Your task to perform on an android device: Add apple airpods to the cart on bestbuy, then select checkout. Image 0: 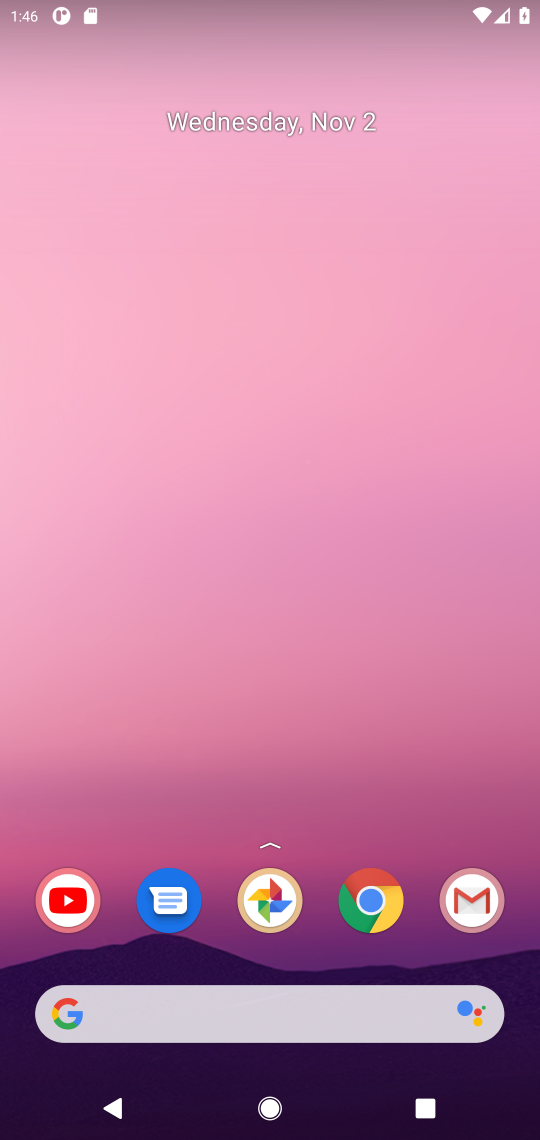
Step 0: press home button
Your task to perform on an android device: Add apple airpods to the cart on bestbuy, then select checkout. Image 1: 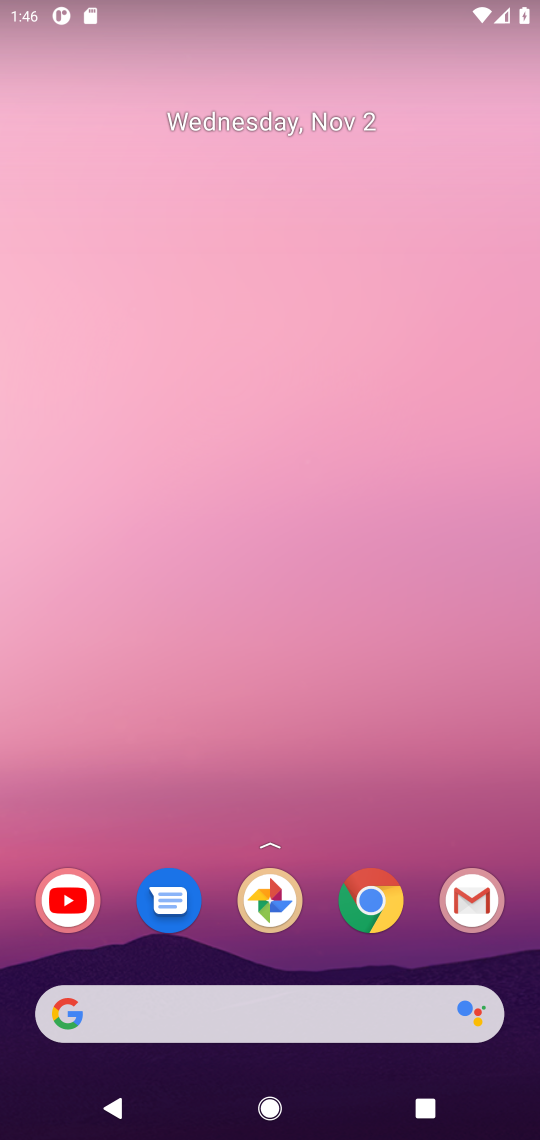
Step 1: press home button
Your task to perform on an android device: Add apple airpods to the cart on bestbuy, then select checkout. Image 2: 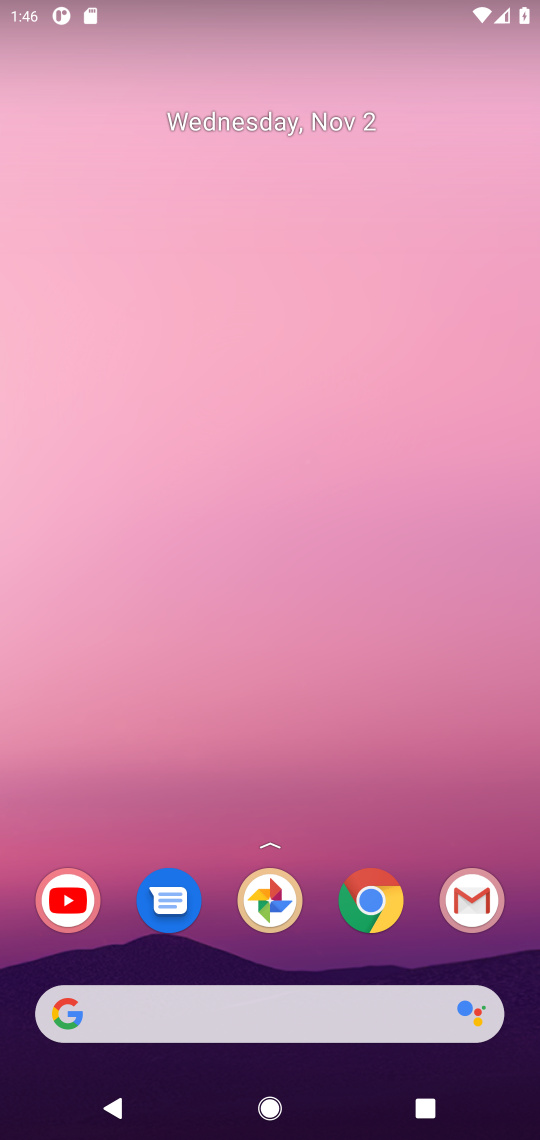
Step 2: click (366, 897)
Your task to perform on an android device: Add apple airpods to the cart on bestbuy, then select checkout. Image 3: 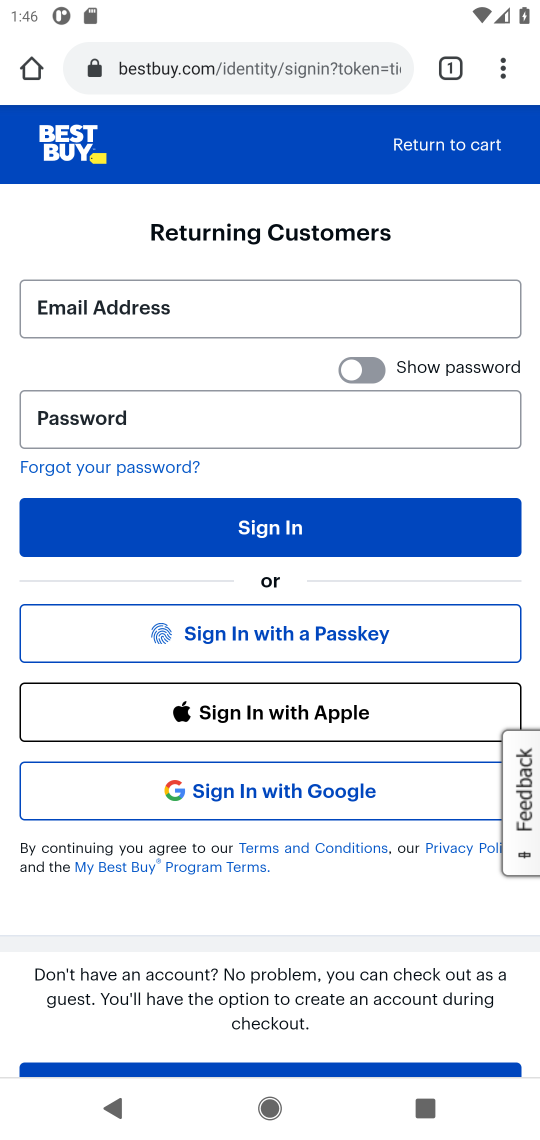
Step 3: click (268, 76)
Your task to perform on an android device: Add apple airpods to the cart on bestbuy, then select checkout. Image 4: 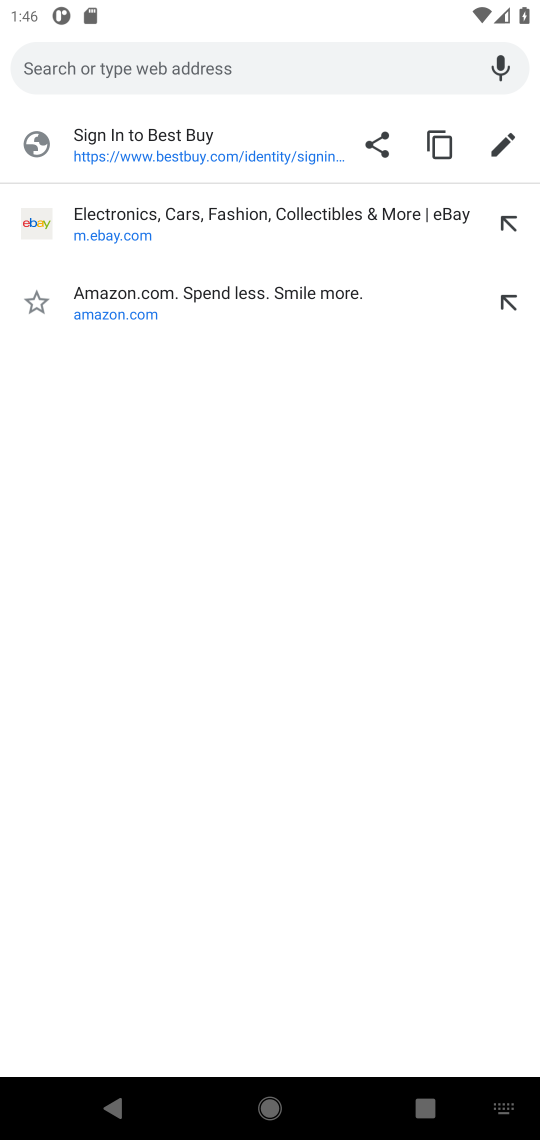
Step 4: type "bestbuy"
Your task to perform on an android device: Add apple airpods to the cart on bestbuy, then select checkout. Image 5: 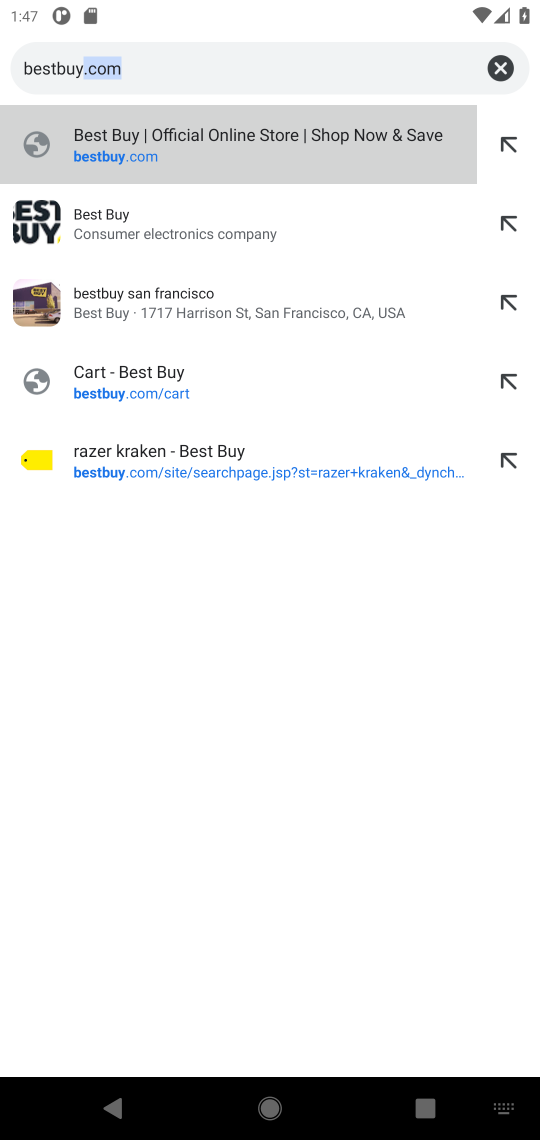
Step 5: type ""
Your task to perform on an android device: Add apple airpods to the cart on bestbuy, then select checkout. Image 6: 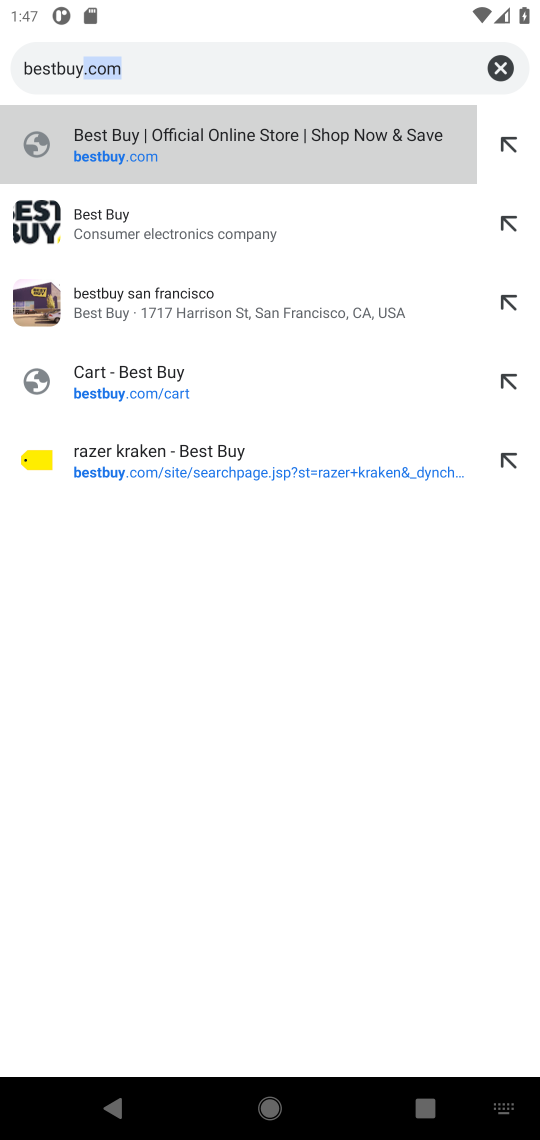
Step 6: click (122, 213)
Your task to perform on an android device: Add apple airpods to the cart on bestbuy, then select checkout. Image 7: 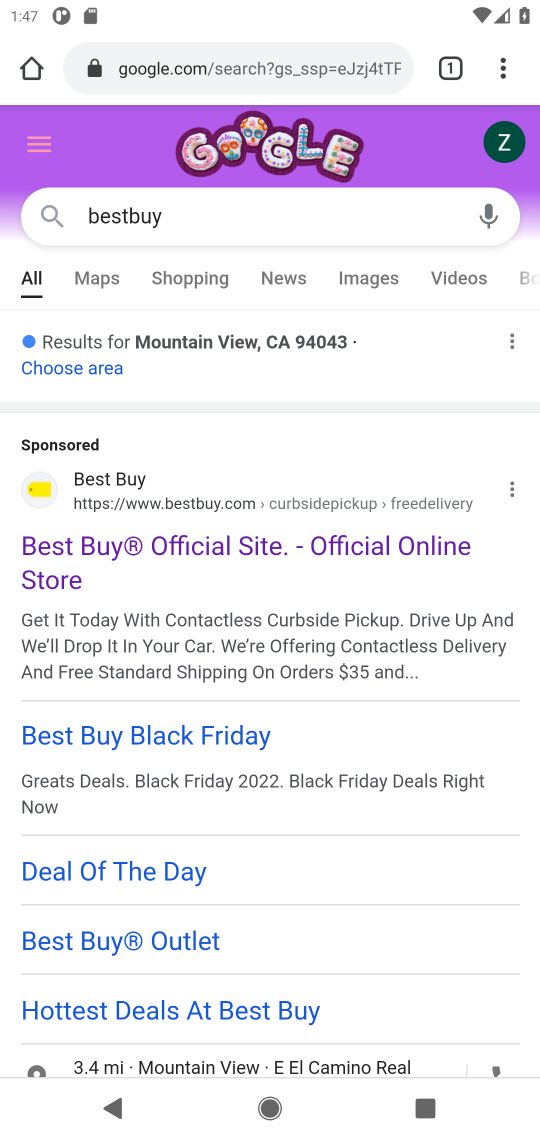
Step 7: drag from (117, 736) to (167, 387)
Your task to perform on an android device: Add apple airpods to the cart on bestbuy, then select checkout. Image 8: 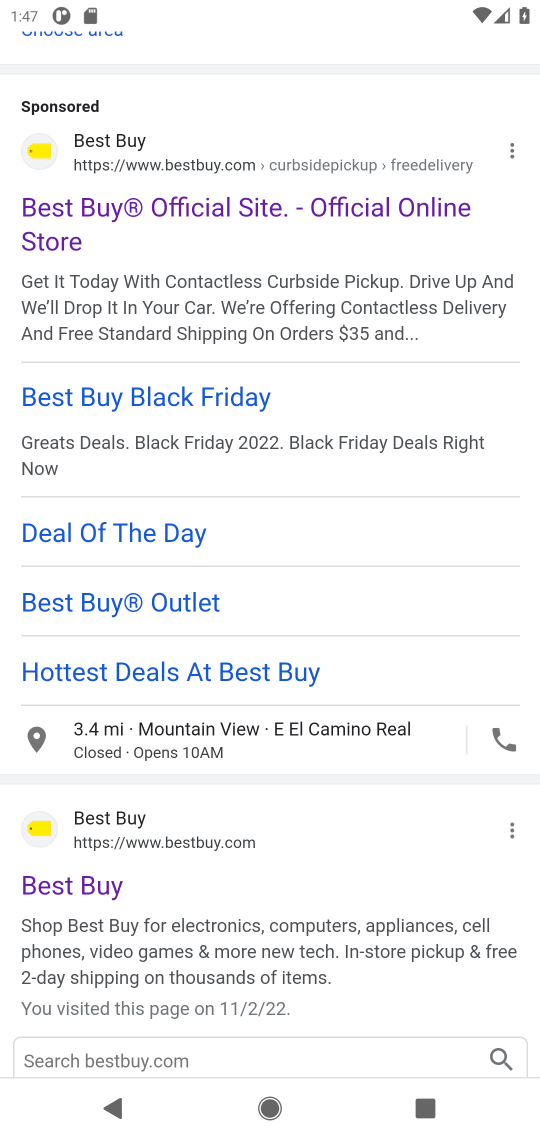
Step 8: click (59, 877)
Your task to perform on an android device: Add apple airpods to the cart on bestbuy, then select checkout. Image 9: 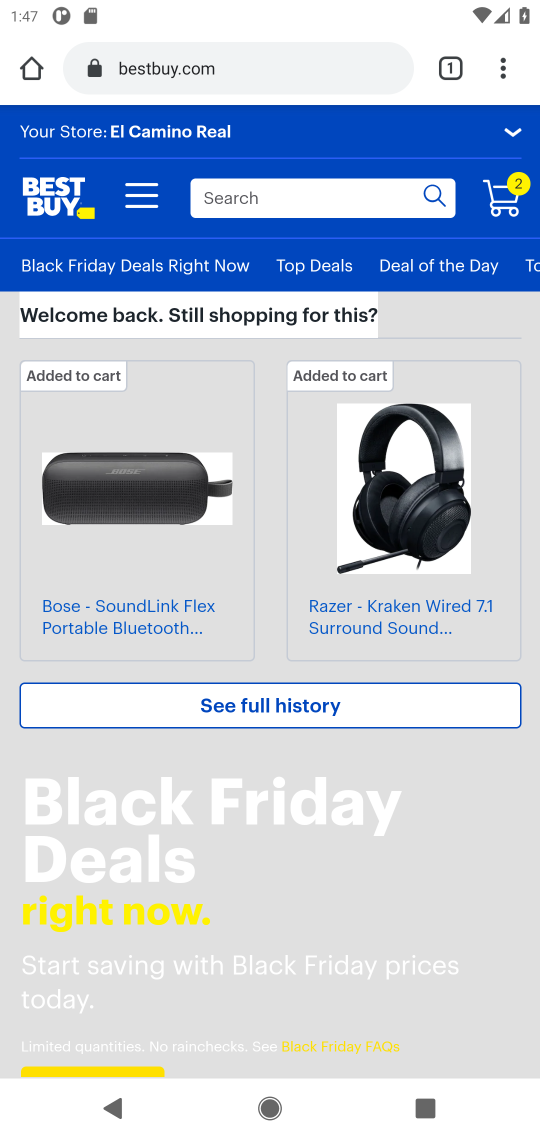
Step 9: click (258, 203)
Your task to perform on an android device: Add apple airpods to the cart on bestbuy, then select checkout. Image 10: 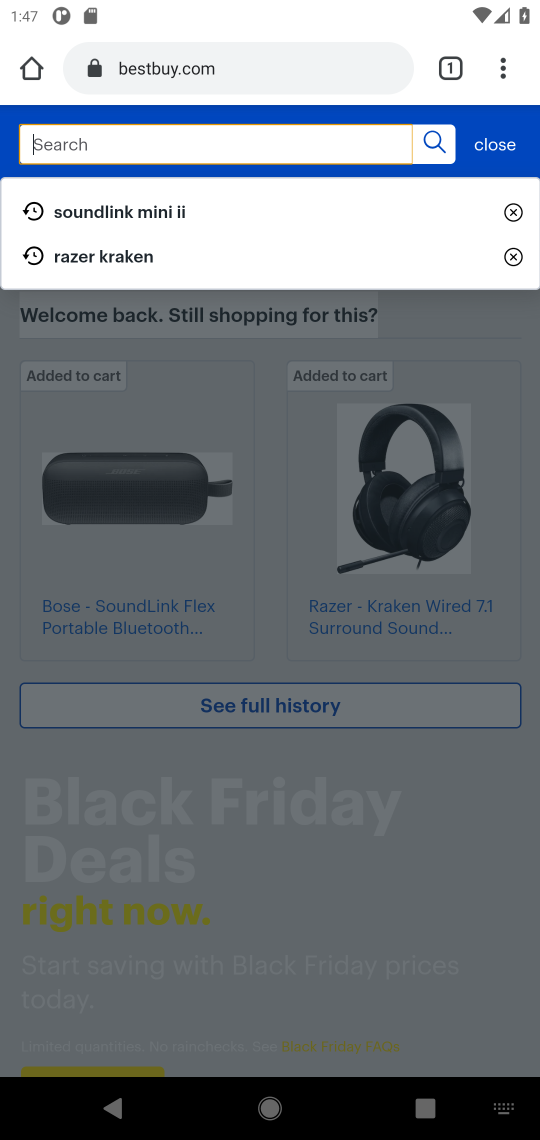
Step 10: type "apple airpods"
Your task to perform on an android device: Add apple airpods to the cart on bestbuy, then select checkout. Image 11: 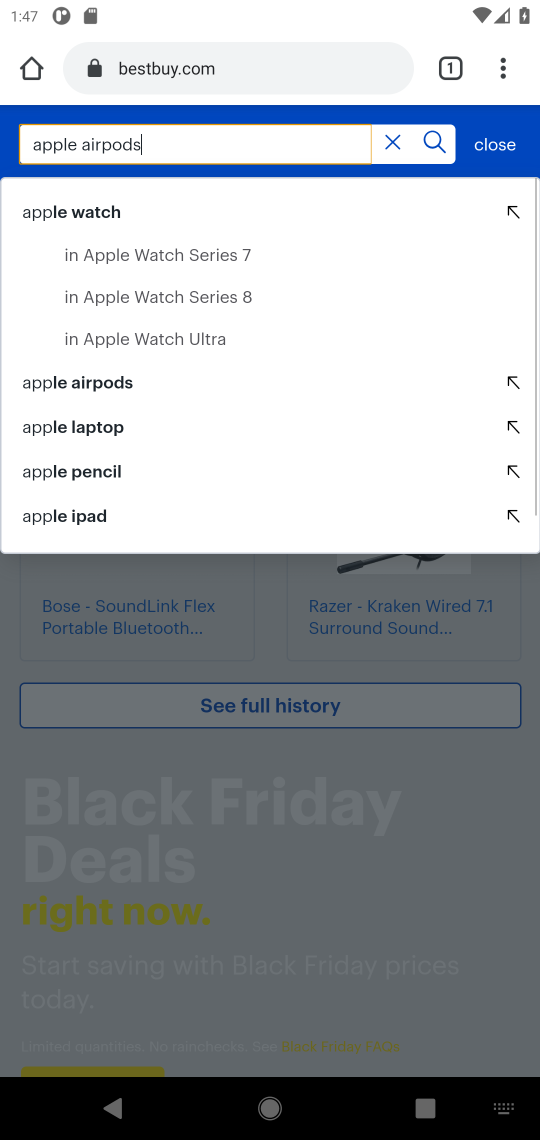
Step 11: type ""
Your task to perform on an android device: Add apple airpods to the cart on bestbuy, then select checkout. Image 12: 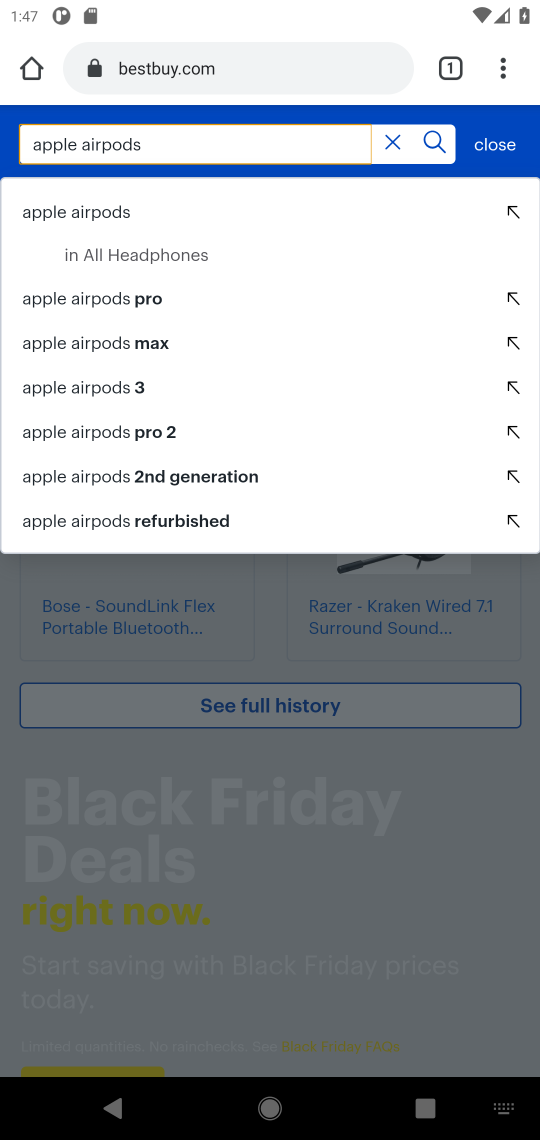
Step 12: click (97, 301)
Your task to perform on an android device: Add apple airpods to the cart on bestbuy, then select checkout. Image 13: 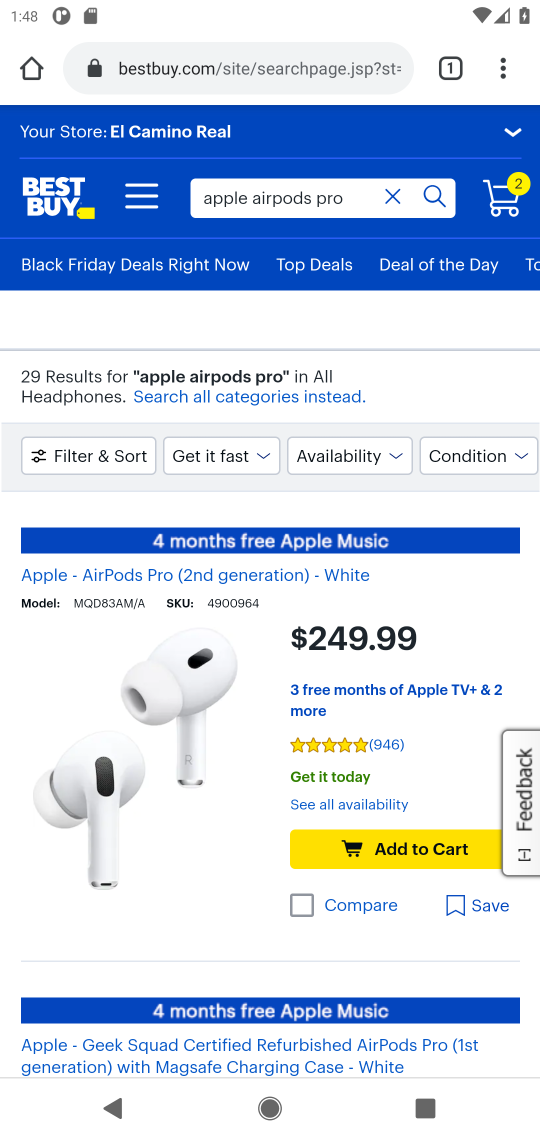
Step 13: click (424, 844)
Your task to perform on an android device: Add apple airpods to the cart on bestbuy, then select checkout. Image 14: 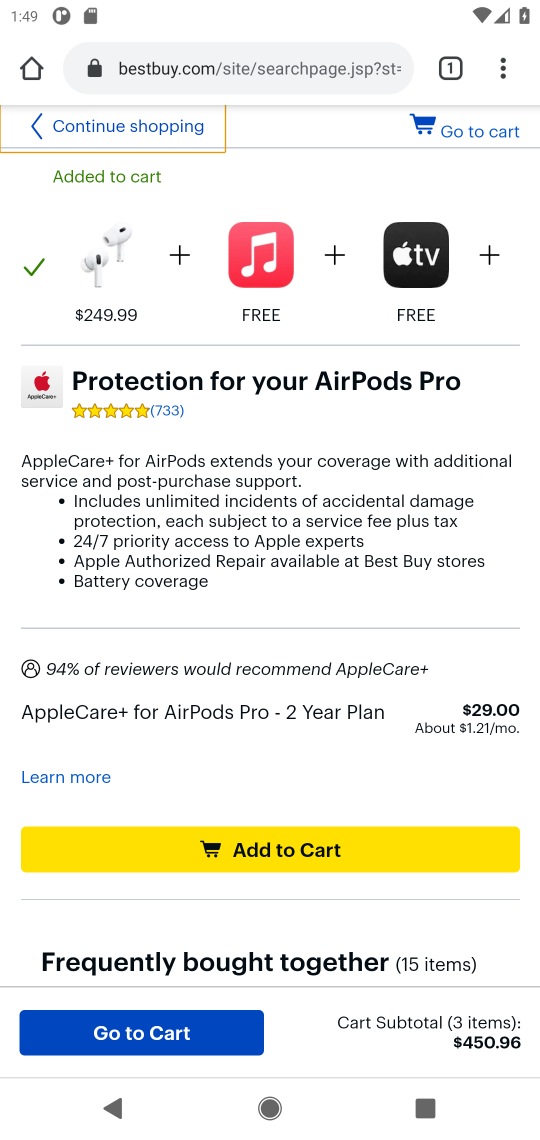
Step 14: click (78, 1033)
Your task to perform on an android device: Add apple airpods to the cart on bestbuy, then select checkout. Image 15: 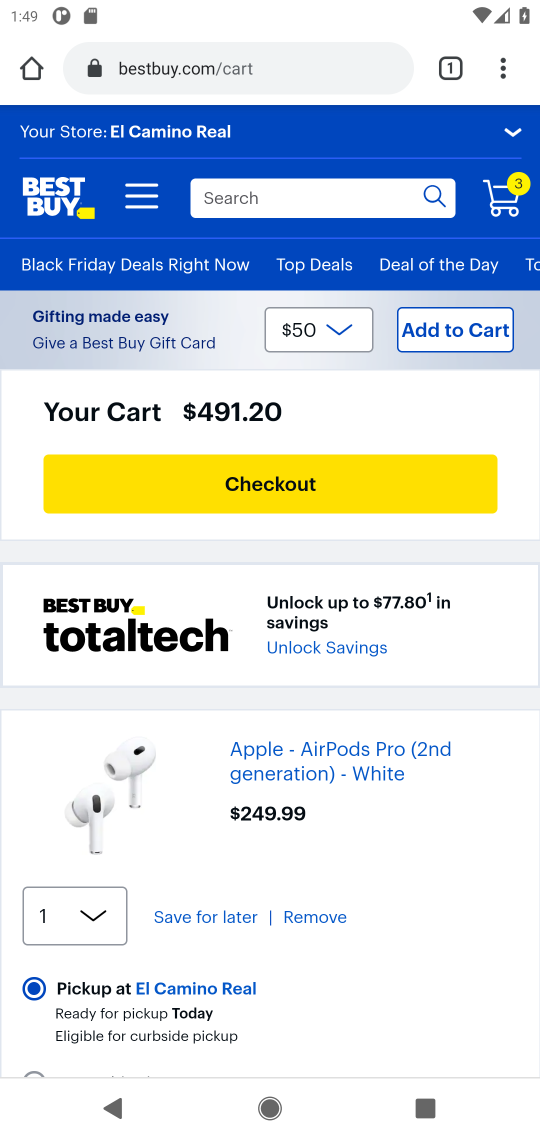
Step 15: click (339, 485)
Your task to perform on an android device: Add apple airpods to the cart on bestbuy, then select checkout. Image 16: 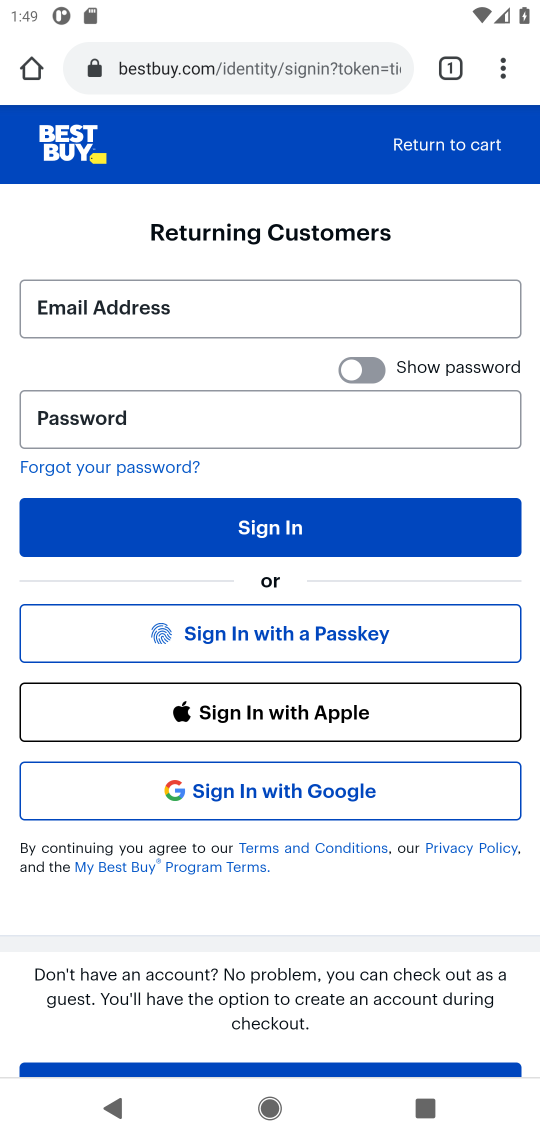
Step 16: task complete